Your task to perform on an android device: Open the Play Movies app and select the watchlist tab. Image 0: 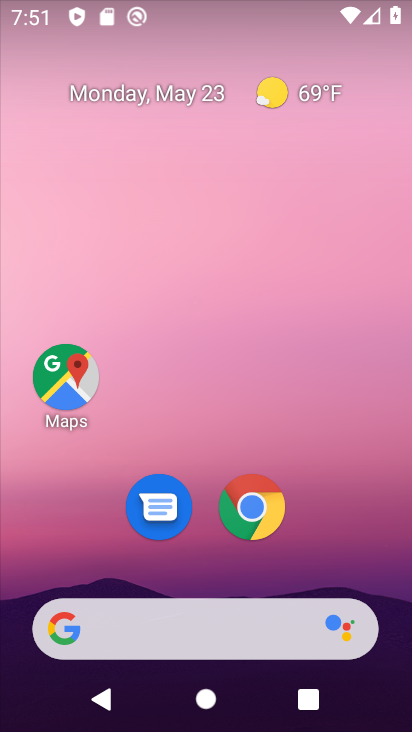
Step 0: drag from (348, 564) to (395, 1)
Your task to perform on an android device: Open the Play Movies app and select the watchlist tab. Image 1: 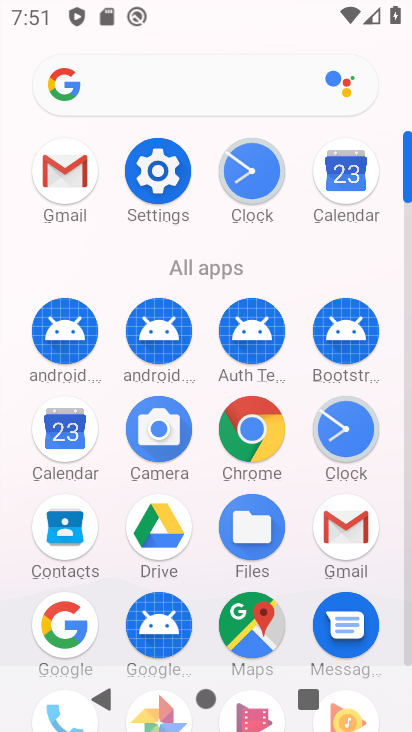
Step 1: drag from (406, 564) to (409, 530)
Your task to perform on an android device: Open the Play Movies app and select the watchlist tab. Image 2: 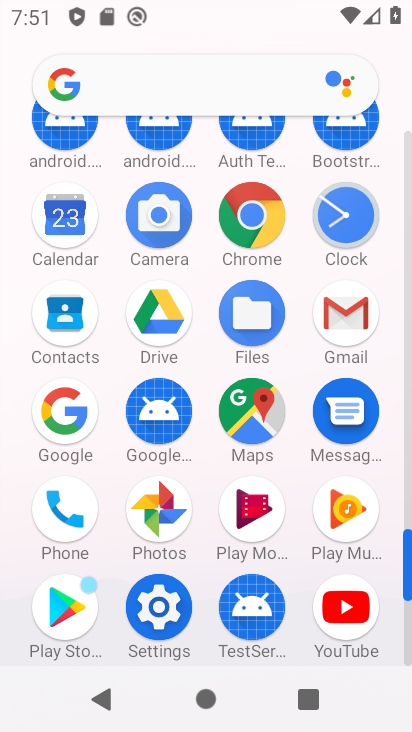
Step 2: click (251, 523)
Your task to perform on an android device: Open the Play Movies app and select the watchlist tab. Image 3: 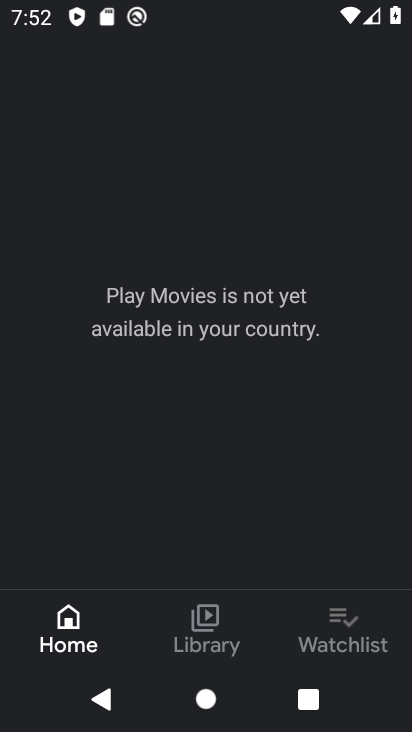
Step 3: click (339, 645)
Your task to perform on an android device: Open the Play Movies app and select the watchlist tab. Image 4: 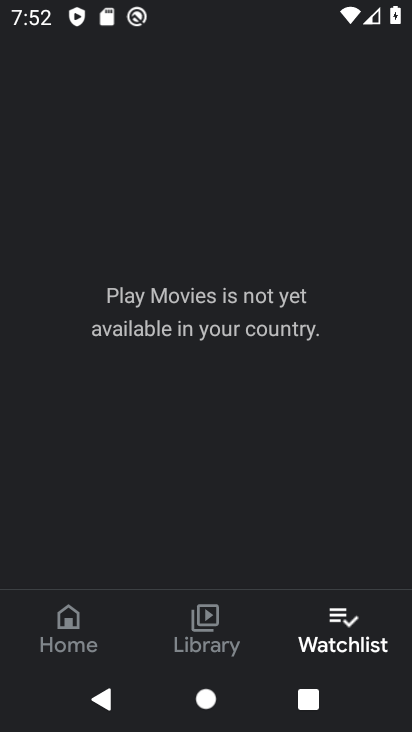
Step 4: task complete